Your task to perform on an android device: Show me productivity apps on the Play Store Image 0: 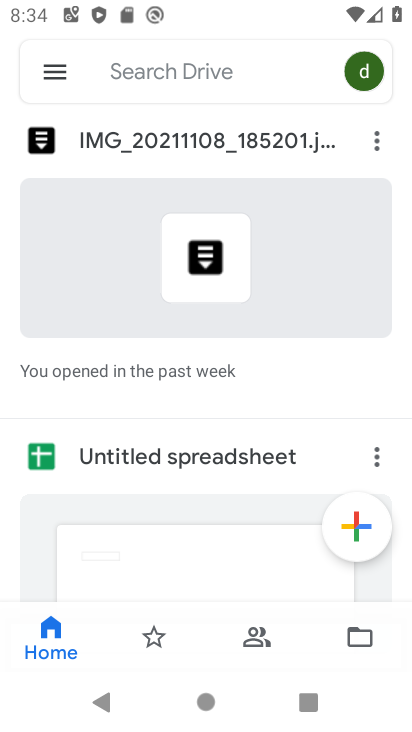
Step 0: press home button
Your task to perform on an android device: Show me productivity apps on the Play Store Image 1: 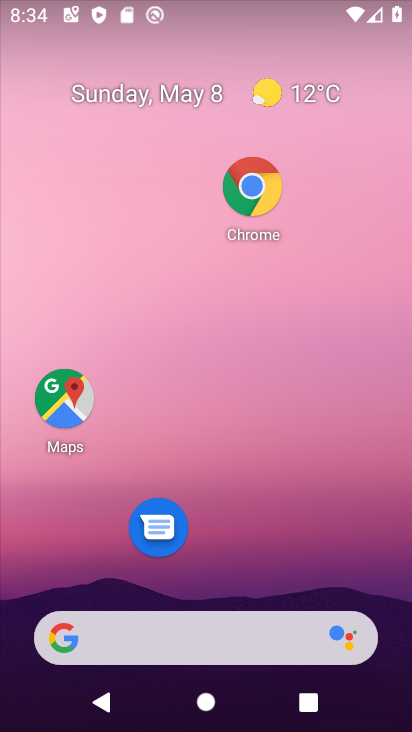
Step 1: drag from (280, 561) to (307, 233)
Your task to perform on an android device: Show me productivity apps on the Play Store Image 2: 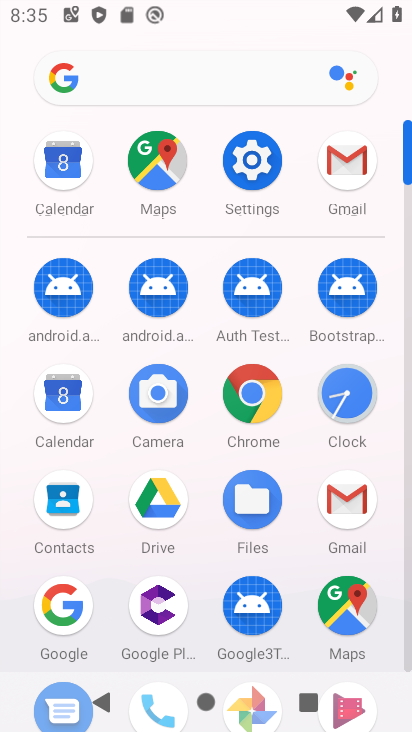
Step 2: drag from (196, 581) to (236, 204)
Your task to perform on an android device: Show me productivity apps on the Play Store Image 3: 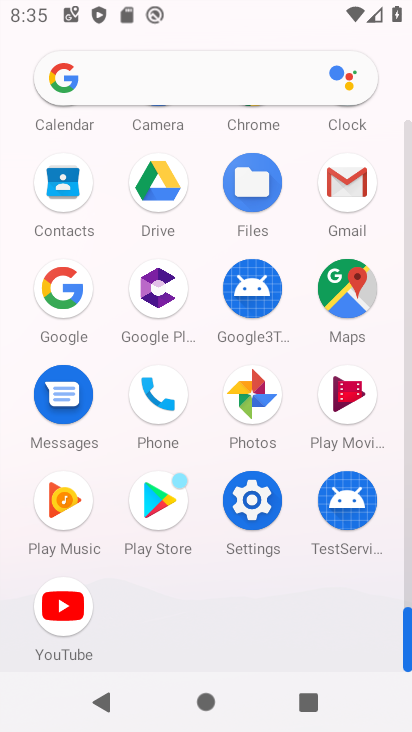
Step 3: click (156, 502)
Your task to perform on an android device: Show me productivity apps on the Play Store Image 4: 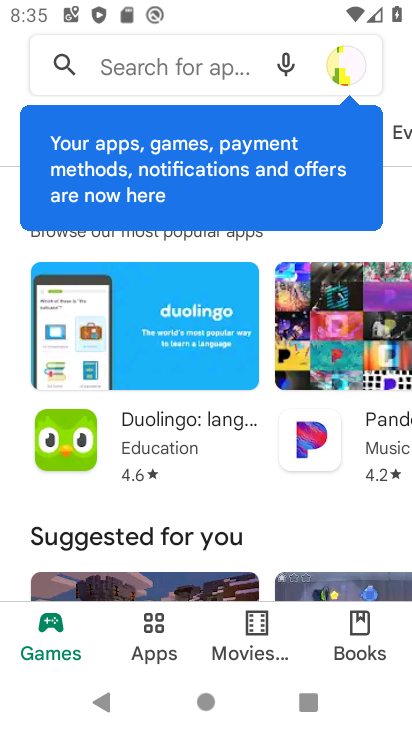
Step 4: click (165, 623)
Your task to perform on an android device: Show me productivity apps on the Play Store Image 5: 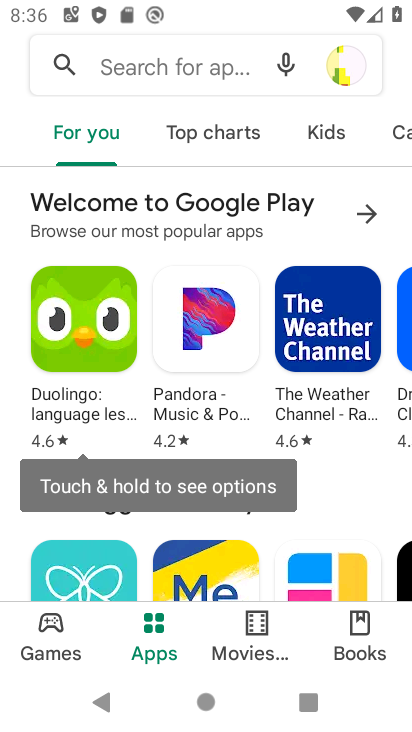
Step 5: task complete